Your task to perform on an android device: Open CNN.com Image 0: 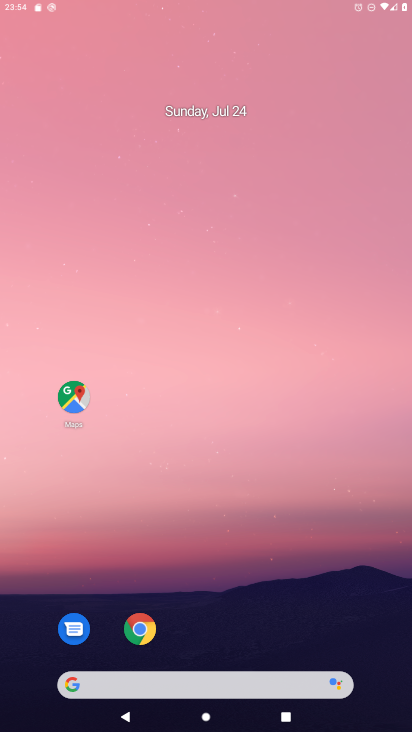
Step 0: click (222, 139)
Your task to perform on an android device: Open CNN.com Image 1: 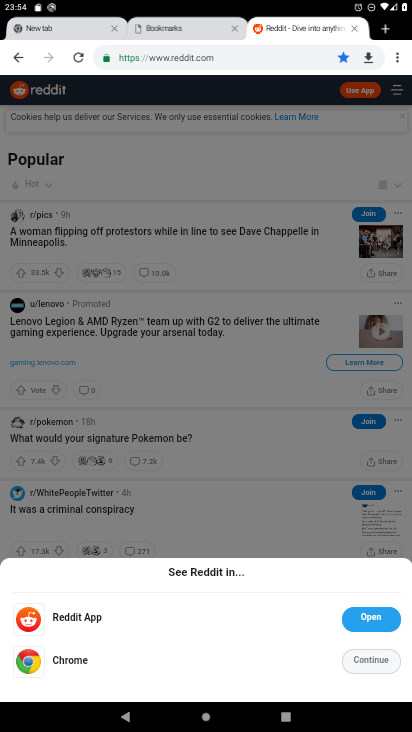
Step 1: drag from (178, 620) to (199, 250)
Your task to perform on an android device: Open CNN.com Image 2: 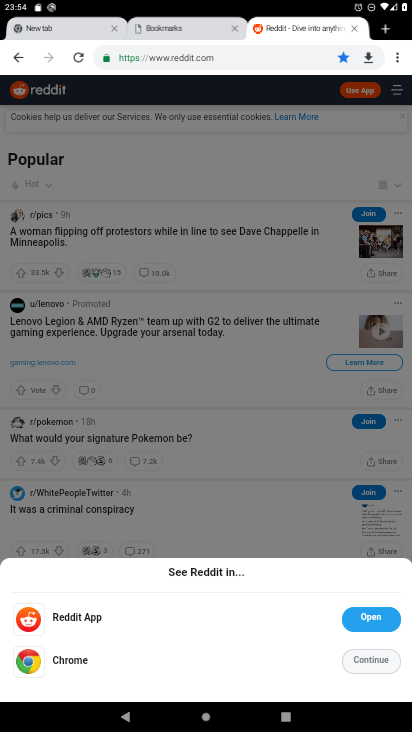
Step 2: press home button
Your task to perform on an android device: Open CNN.com Image 3: 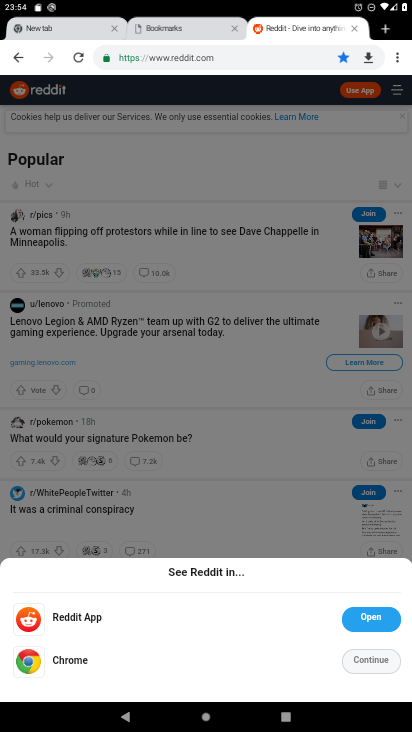
Step 3: press home button
Your task to perform on an android device: Open CNN.com Image 4: 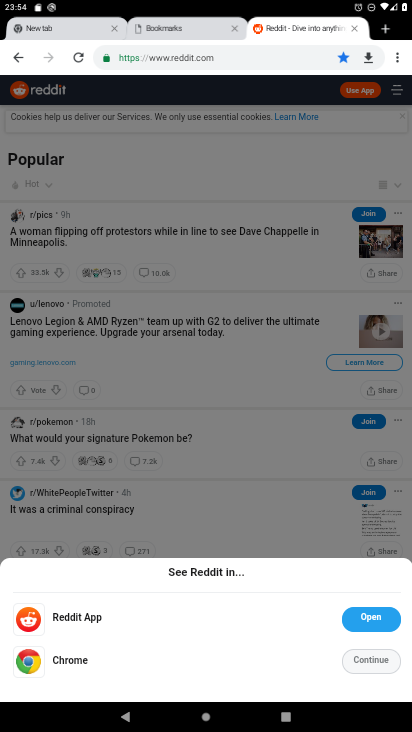
Step 4: click (216, 218)
Your task to perform on an android device: Open CNN.com Image 5: 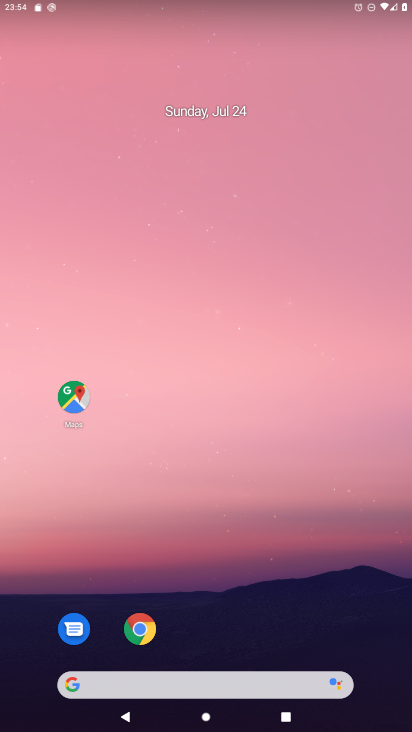
Step 5: click (235, 167)
Your task to perform on an android device: Open CNN.com Image 6: 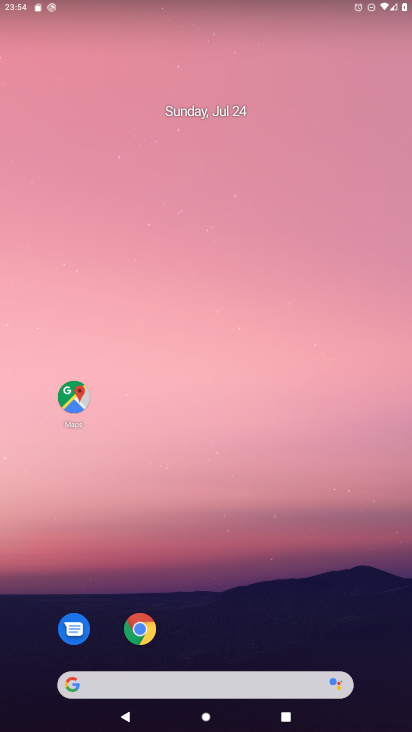
Step 6: drag from (171, 660) to (188, 210)
Your task to perform on an android device: Open CNN.com Image 7: 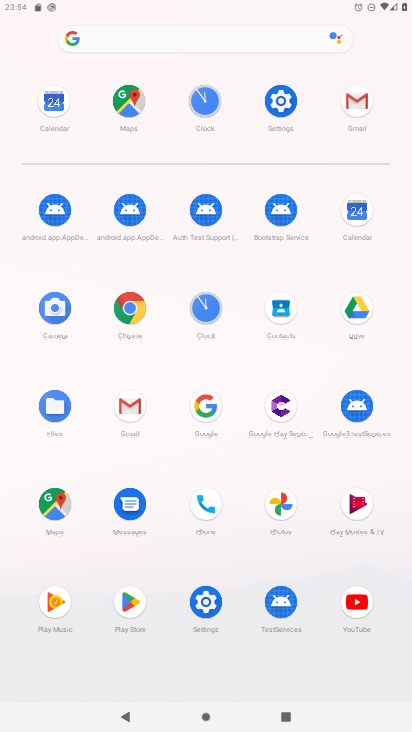
Step 7: click (171, 40)
Your task to perform on an android device: Open CNN.com Image 8: 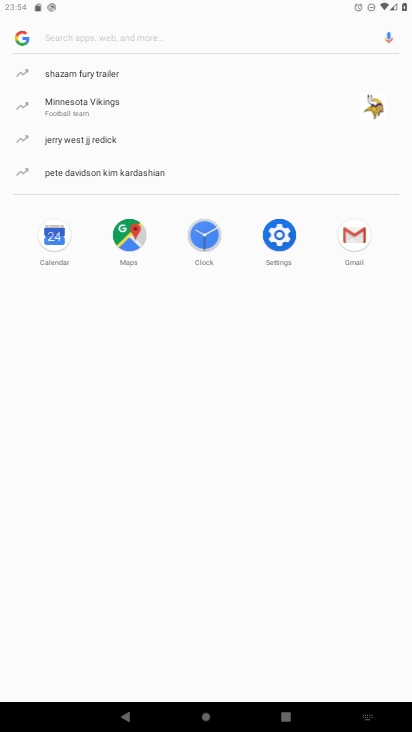
Step 8: click (119, 28)
Your task to perform on an android device: Open CNN.com Image 9: 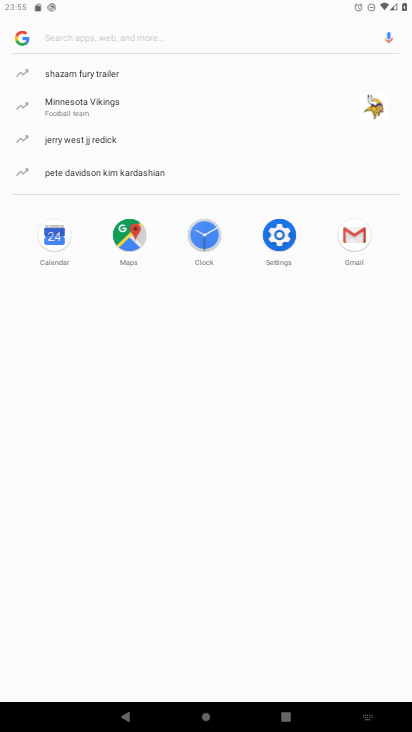
Step 9: type "CNN.com"
Your task to perform on an android device: Open CNN.com Image 10: 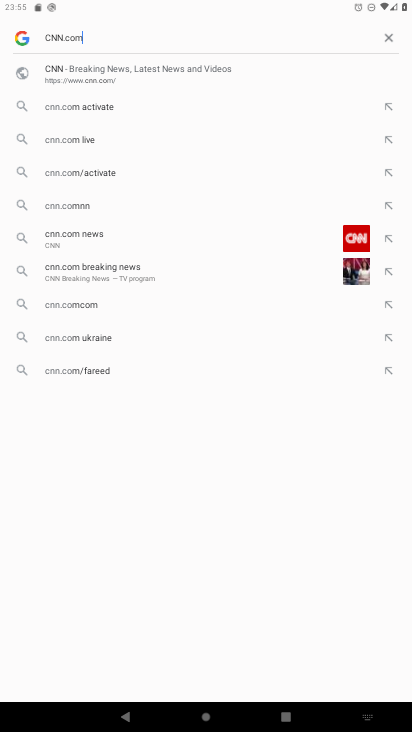
Step 10: type ""
Your task to perform on an android device: Open CNN.com Image 11: 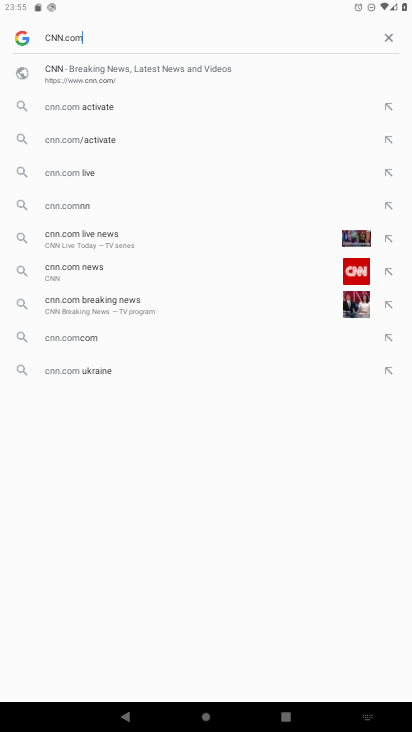
Step 11: click (85, 174)
Your task to perform on an android device: Open CNN.com Image 12: 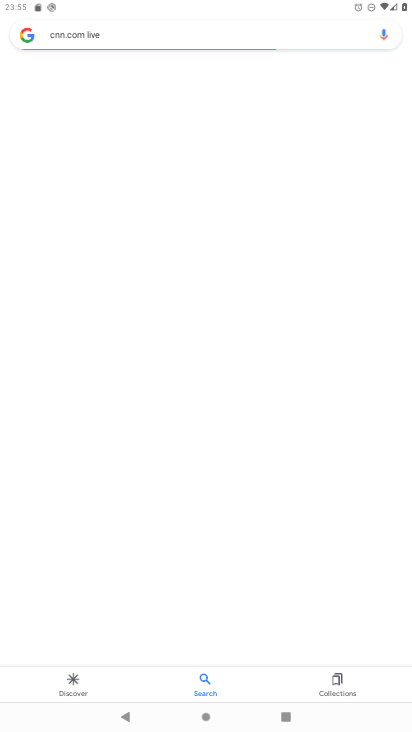
Step 12: task complete